Your task to perform on an android device: Open calendar and show me the first week of next month Image 0: 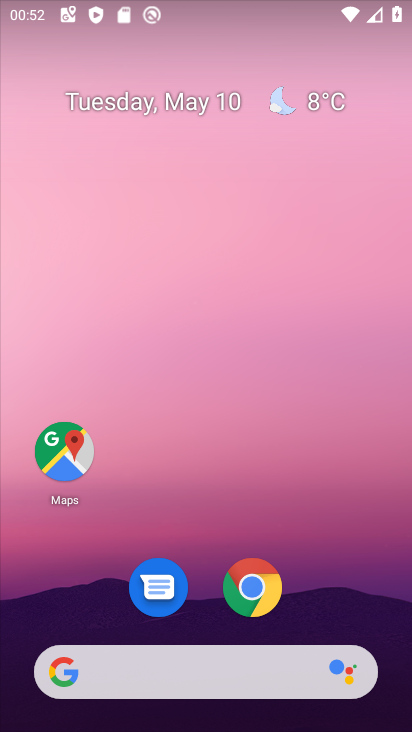
Step 0: drag from (398, 630) to (410, 218)
Your task to perform on an android device: Open calendar and show me the first week of next month Image 1: 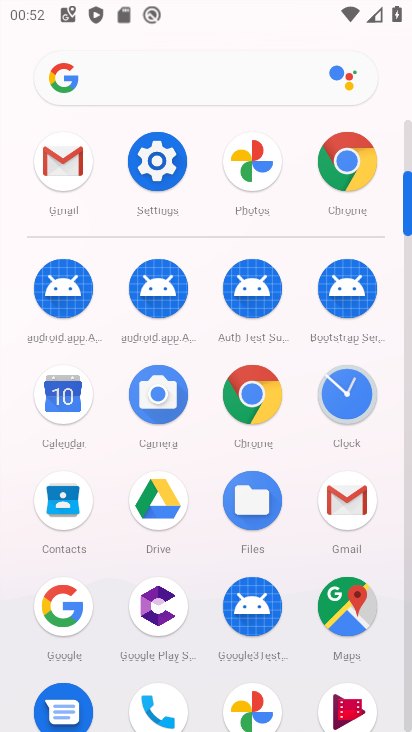
Step 1: click (52, 408)
Your task to perform on an android device: Open calendar and show me the first week of next month Image 2: 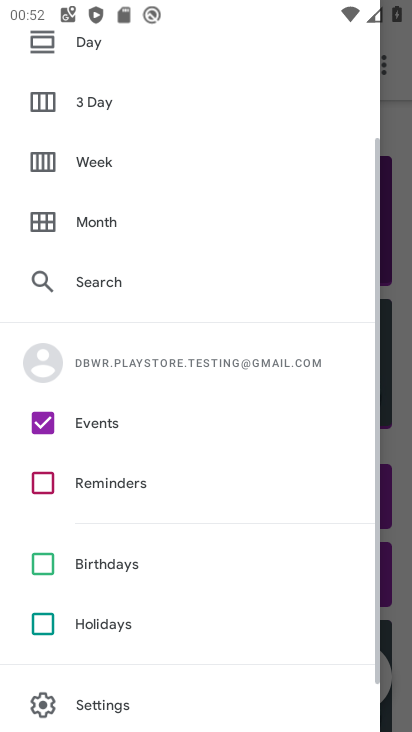
Step 2: press back button
Your task to perform on an android device: Open calendar and show me the first week of next month Image 3: 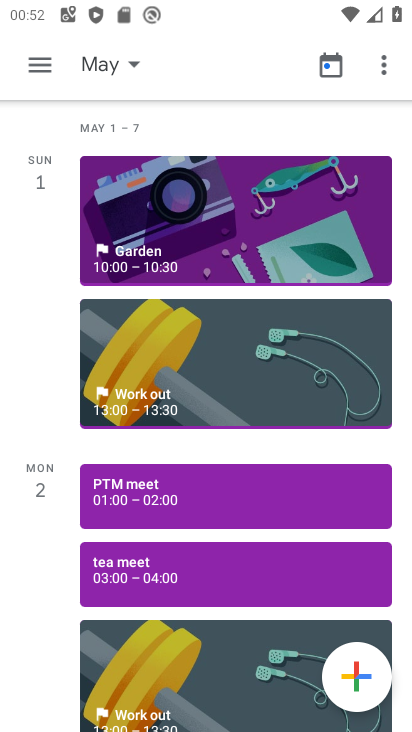
Step 3: click (139, 72)
Your task to perform on an android device: Open calendar and show me the first week of next month Image 4: 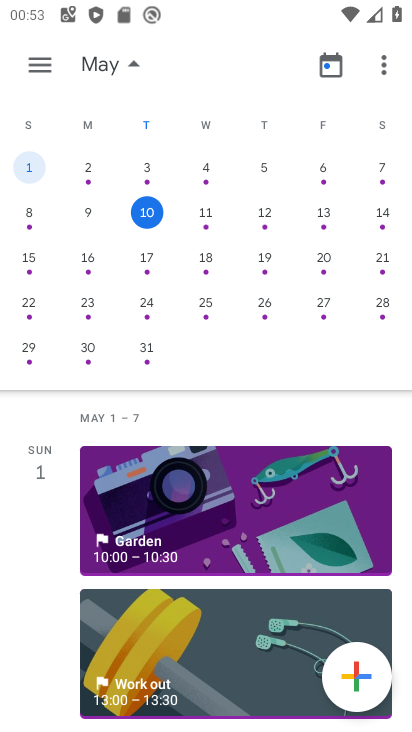
Step 4: drag from (373, 238) to (202, 219)
Your task to perform on an android device: Open calendar and show me the first week of next month Image 5: 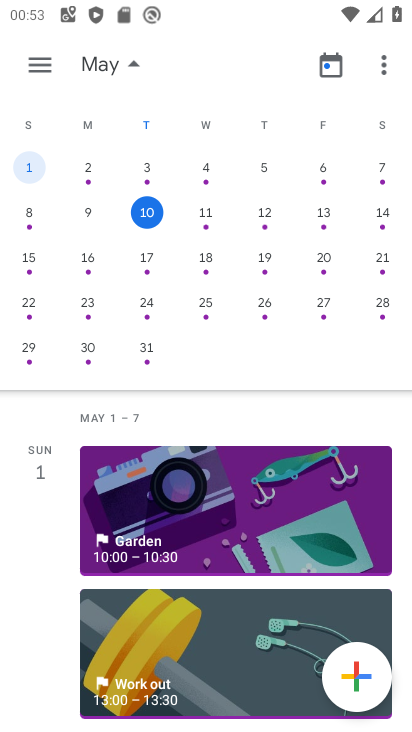
Step 5: drag from (399, 251) to (43, 220)
Your task to perform on an android device: Open calendar and show me the first week of next month Image 6: 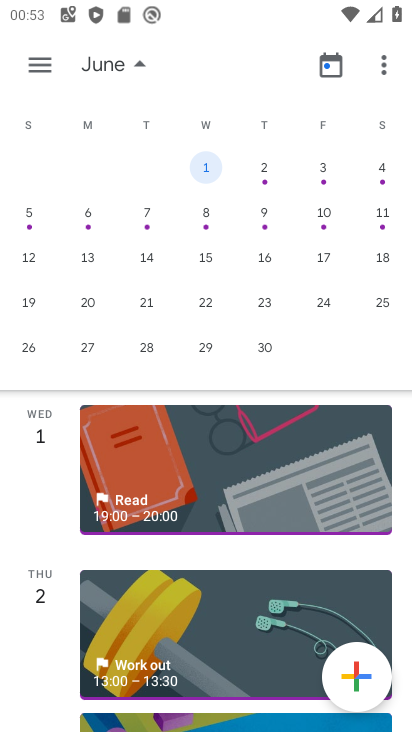
Step 6: click (322, 171)
Your task to perform on an android device: Open calendar and show me the first week of next month Image 7: 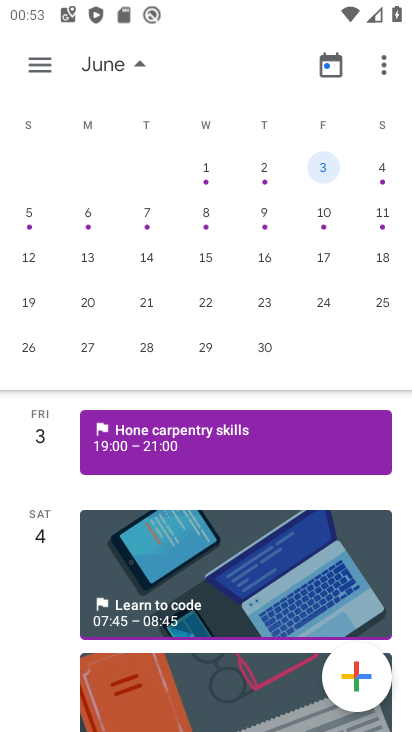
Step 7: task complete